Your task to perform on an android device: What is the news today? Image 0: 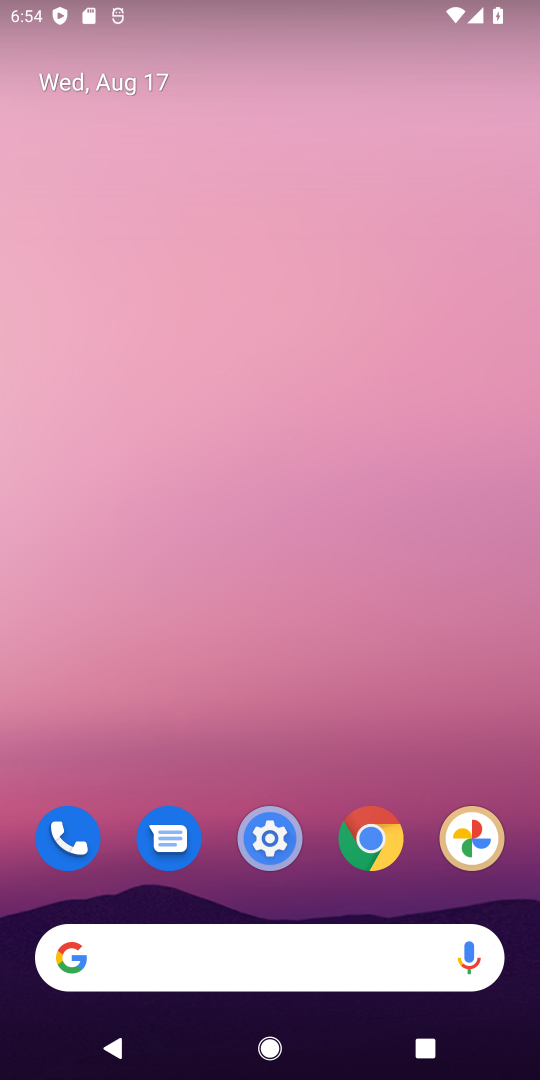
Step 0: drag from (303, 661) to (316, 121)
Your task to perform on an android device: What is the news today? Image 1: 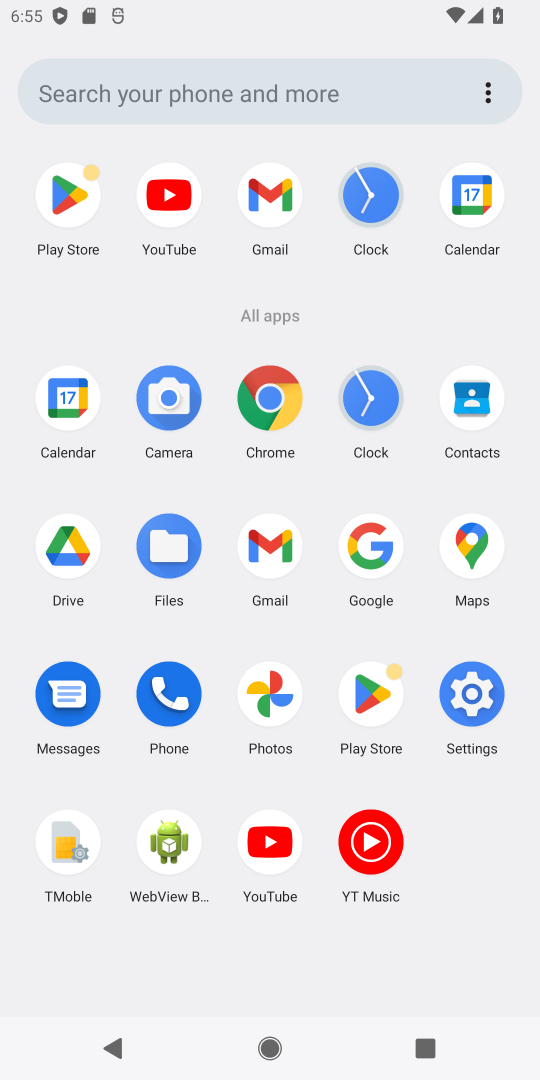
Step 1: click (367, 556)
Your task to perform on an android device: What is the news today? Image 2: 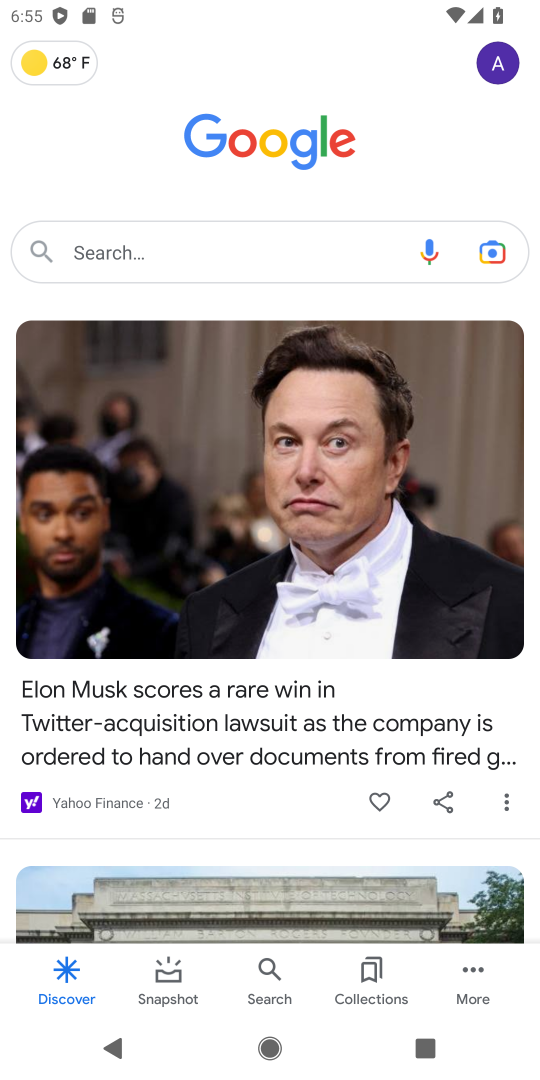
Step 2: click (271, 259)
Your task to perform on an android device: What is the news today? Image 3: 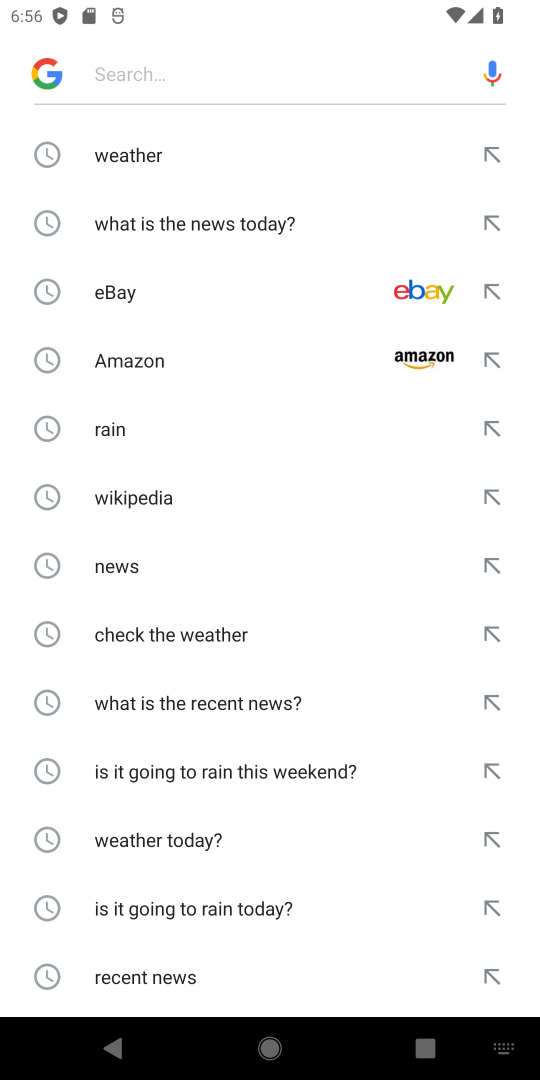
Step 3: click (181, 561)
Your task to perform on an android device: What is the news today? Image 4: 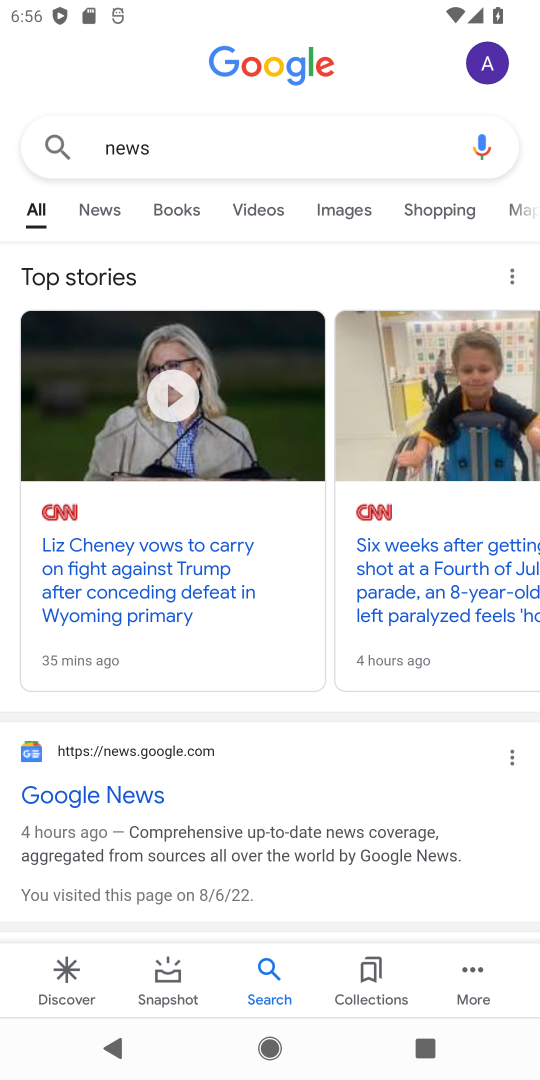
Step 4: task complete